Your task to perform on an android device: turn off notifications settings in the gmail app Image 0: 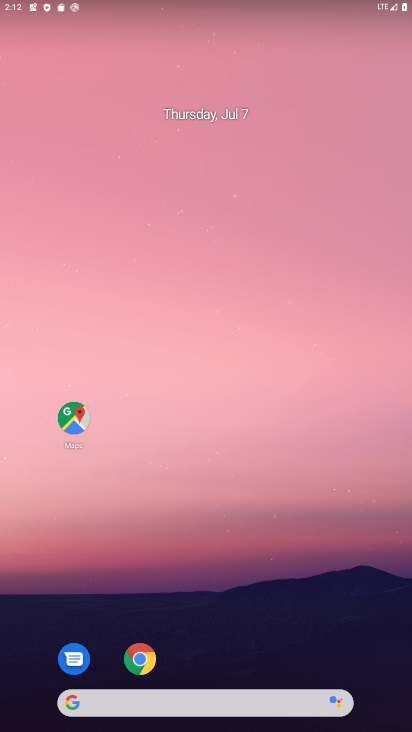
Step 0: drag from (252, 622) to (245, 110)
Your task to perform on an android device: turn off notifications settings in the gmail app Image 1: 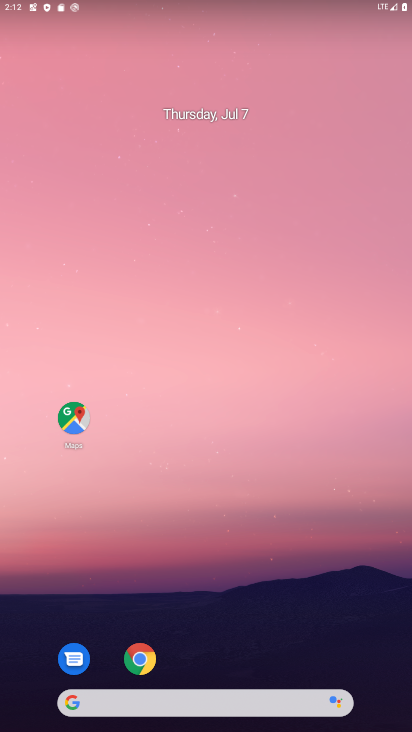
Step 1: drag from (255, 587) to (239, 124)
Your task to perform on an android device: turn off notifications settings in the gmail app Image 2: 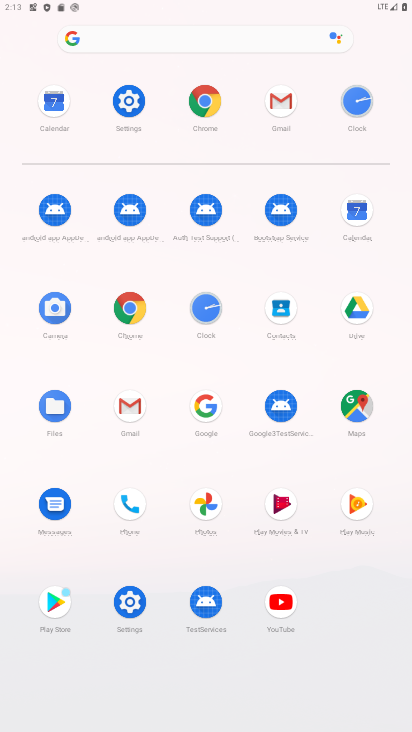
Step 2: click (283, 98)
Your task to perform on an android device: turn off notifications settings in the gmail app Image 3: 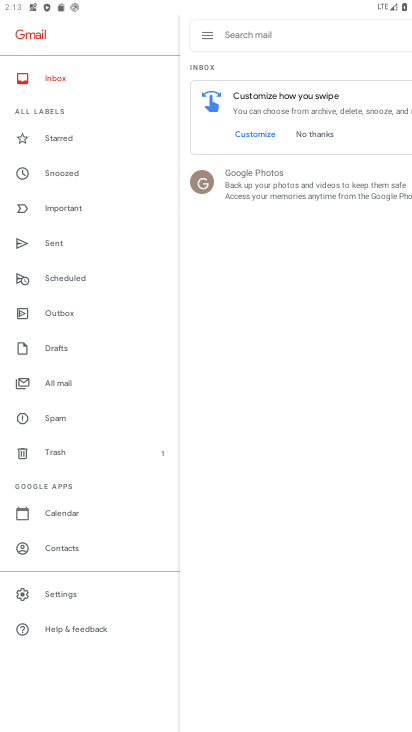
Step 3: click (66, 592)
Your task to perform on an android device: turn off notifications settings in the gmail app Image 4: 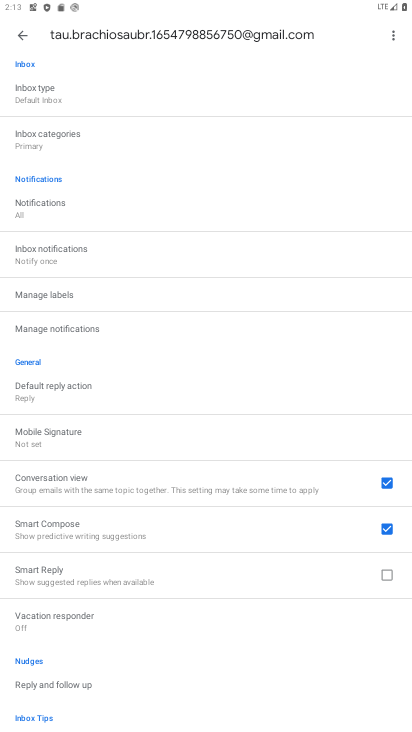
Step 4: click (65, 331)
Your task to perform on an android device: turn off notifications settings in the gmail app Image 5: 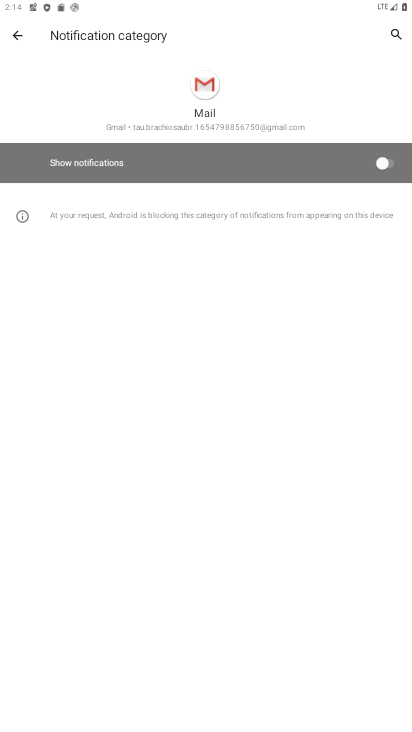
Step 5: task complete